Your task to perform on an android device: open app "HBO Max: Stream TV & Movies" Image 0: 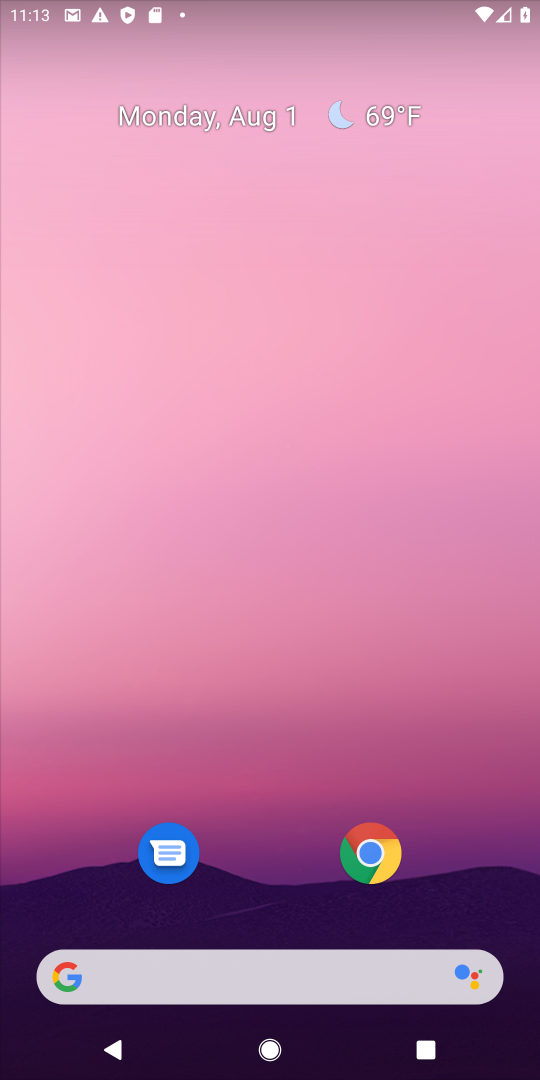
Step 0: drag from (272, 910) to (314, 327)
Your task to perform on an android device: open app "HBO Max: Stream TV & Movies" Image 1: 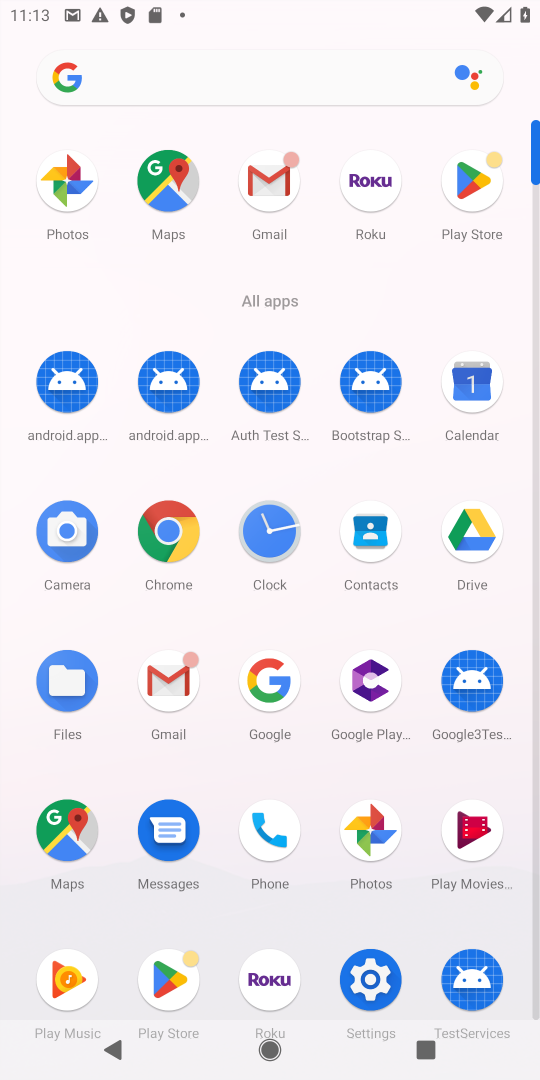
Step 1: click (451, 200)
Your task to perform on an android device: open app "HBO Max: Stream TV & Movies" Image 2: 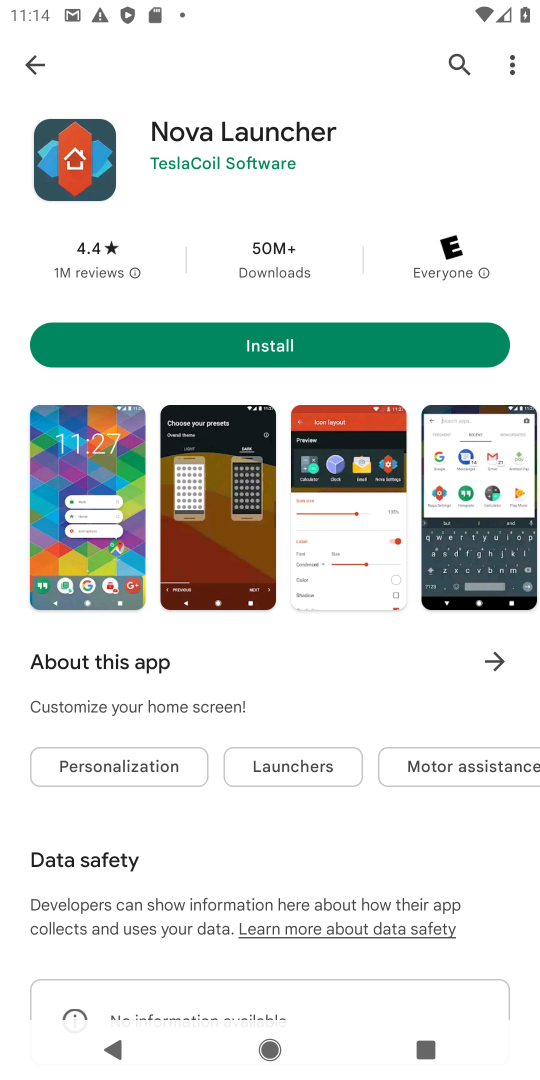
Step 2: click (479, 79)
Your task to perform on an android device: open app "HBO Max: Stream TV & Movies" Image 3: 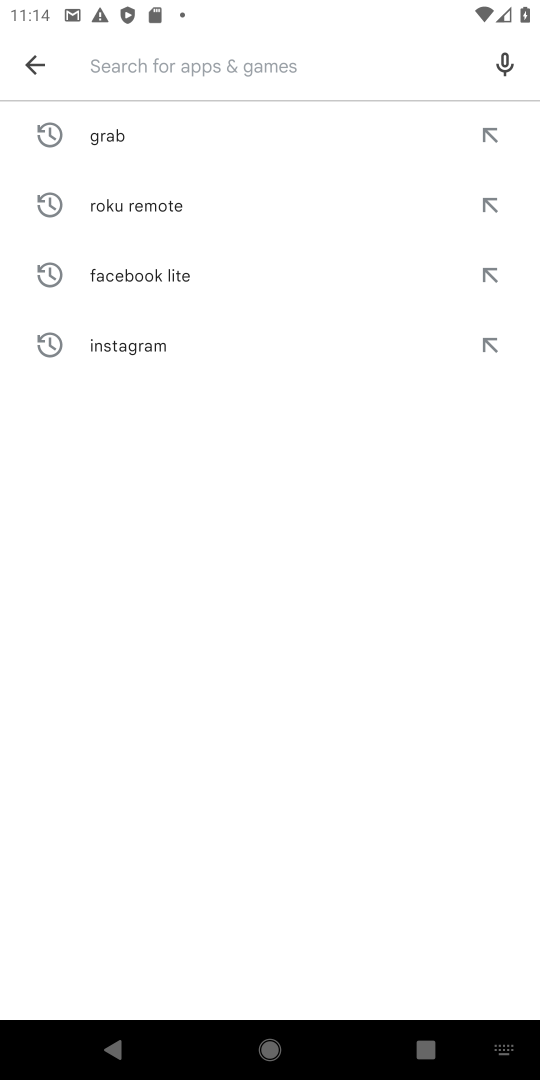
Step 3: type "HBO Max: Stream TV & Movies""
Your task to perform on an android device: open app "HBO Max: Stream TV & Movies" Image 4: 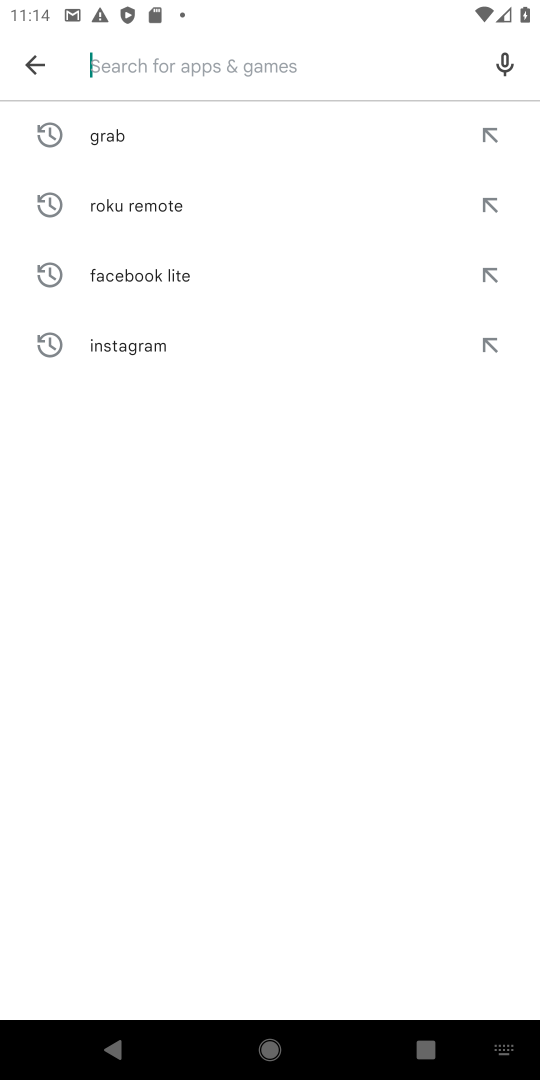
Step 4: type ""
Your task to perform on an android device: open app "HBO Max: Stream TV & Movies" Image 5: 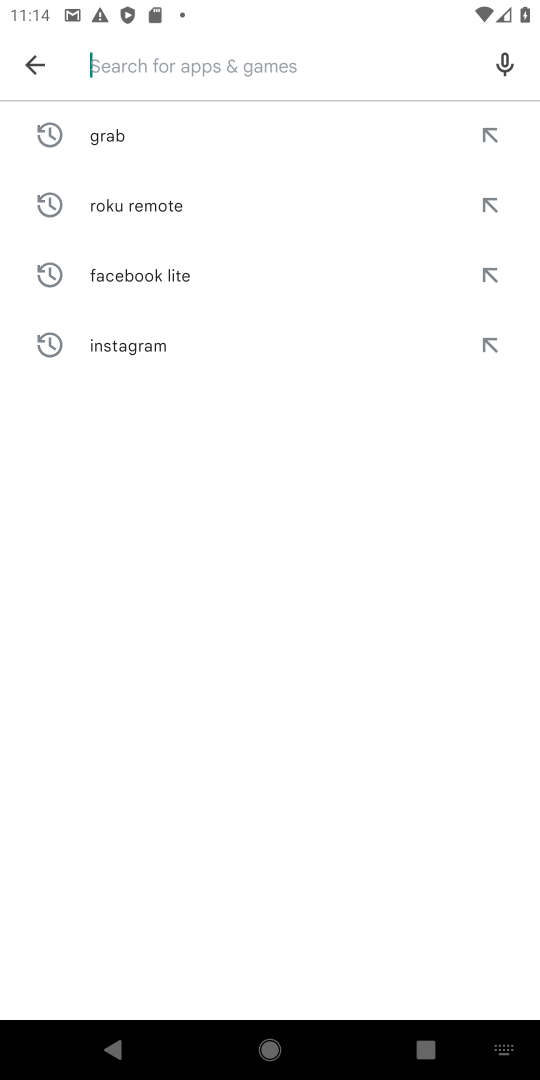
Step 5: type "HBO"
Your task to perform on an android device: open app "HBO Max: Stream TV & Movies" Image 6: 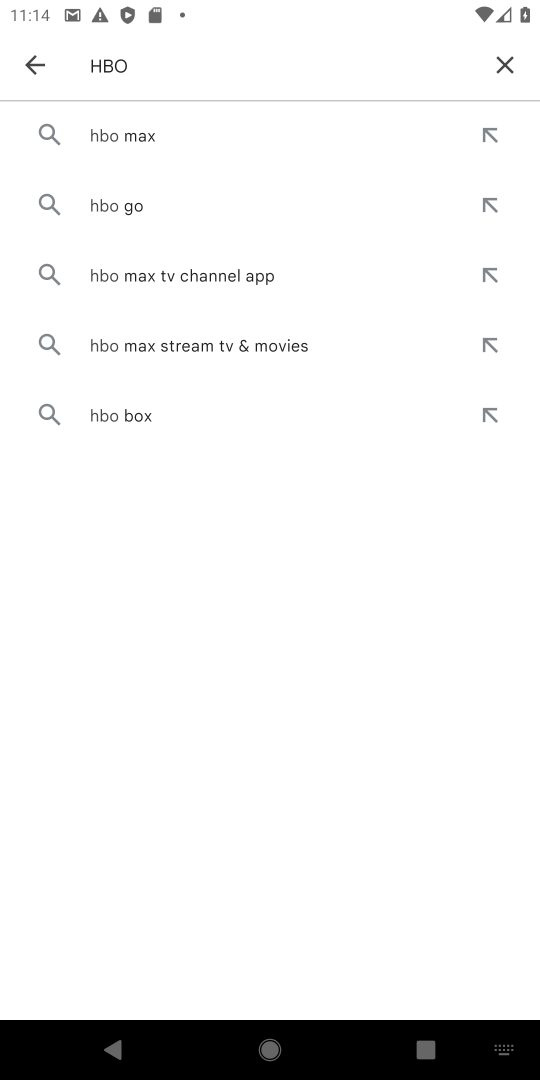
Step 6: click (116, 130)
Your task to perform on an android device: open app "HBO Max: Stream TV & Movies" Image 7: 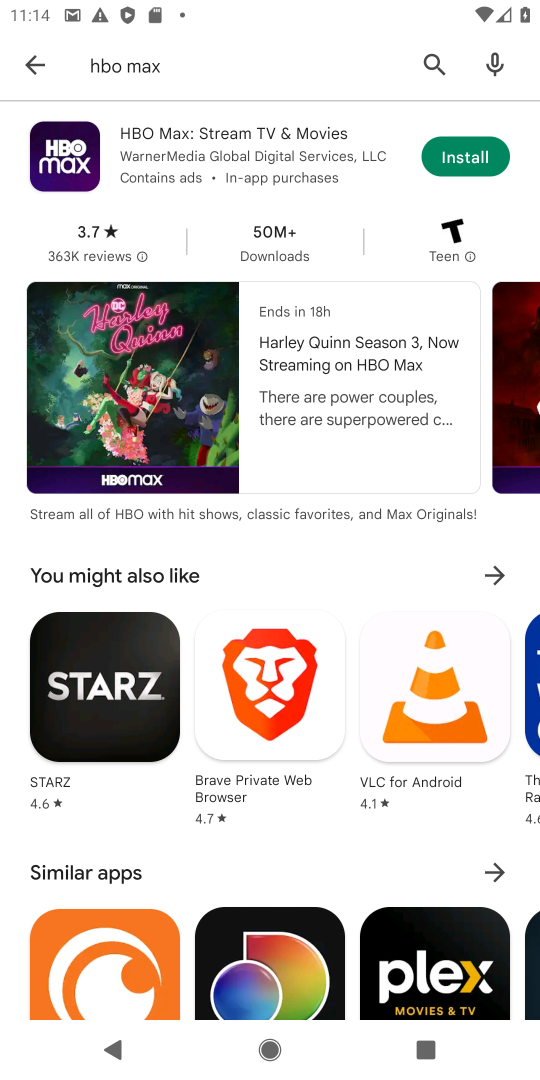
Step 7: task complete